Your task to perform on an android device: change the clock display to analog Image 0: 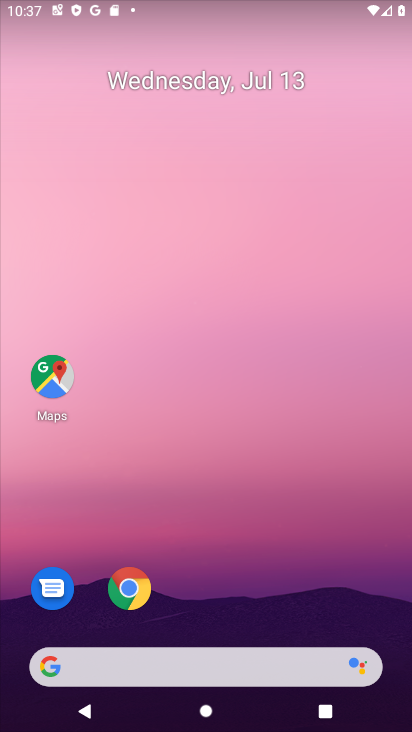
Step 0: drag from (237, 590) to (235, 183)
Your task to perform on an android device: change the clock display to analog Image 1: 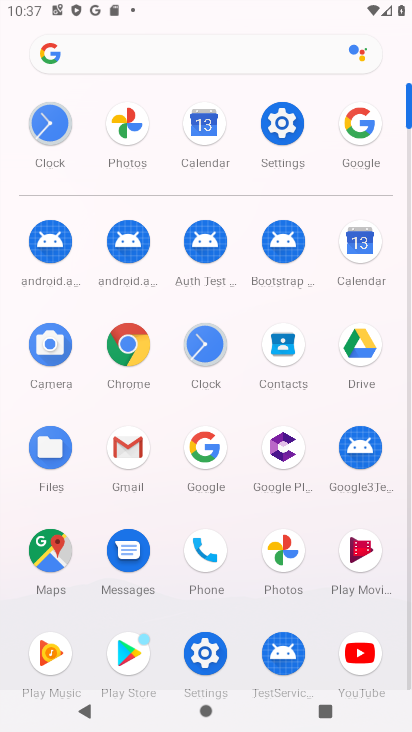
Step 1: click (210, 346)
Your task to perform on an android device: change the clock display to analog Image 2: 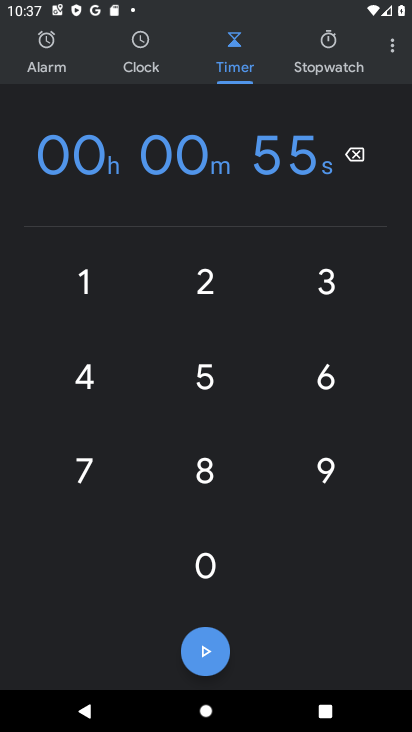
Step 2: click (380, 47)
Your task to perform on an android device: change the clock display to analog Image 3: 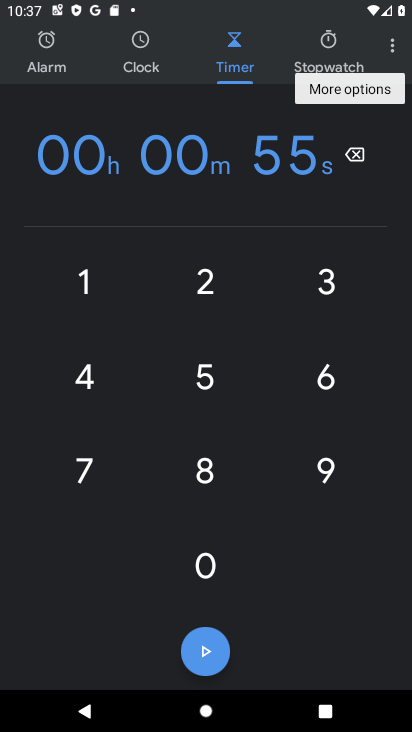
Step 3: click (391, 41)
Your task to perform on an android device: change the clock display to analog Image 4: 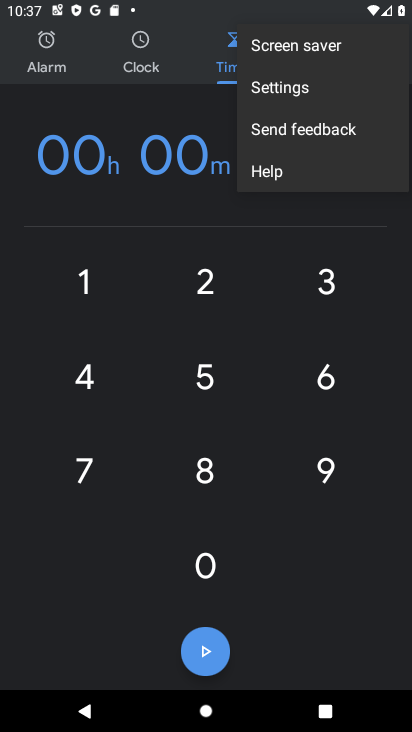
Step 4: click (310, 88)
Your task to perform on an android device: change the clock display to analog Image 5: 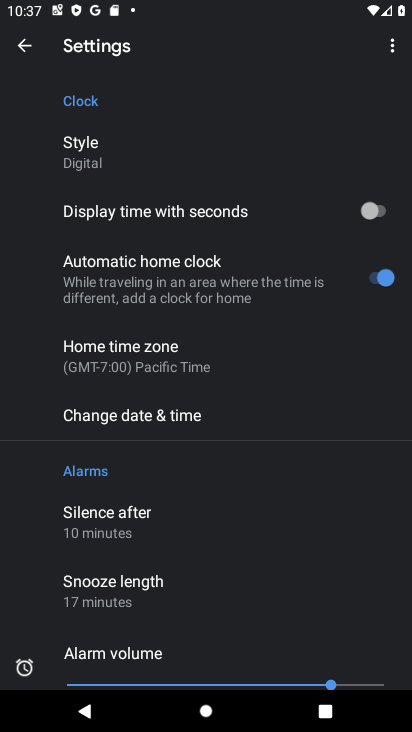
Step 5: click (116, 160)
Your task to perform on an android device: change the clock display to analog Image 6: 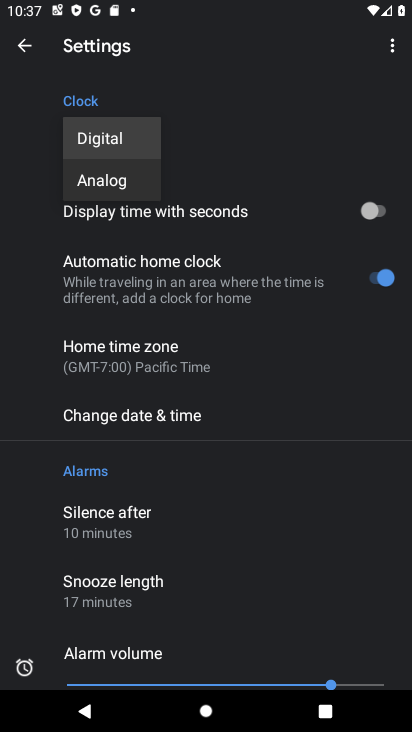
Step 6: click (108, 183)
Your task to perform on an android device: change the clock display to analog Image 7: 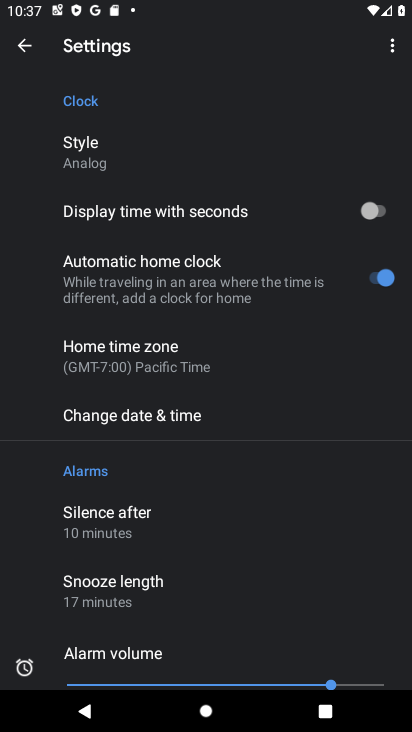
Step 7: task complete